Your task to perform on an android device: Turn on the flashlight Image 0: 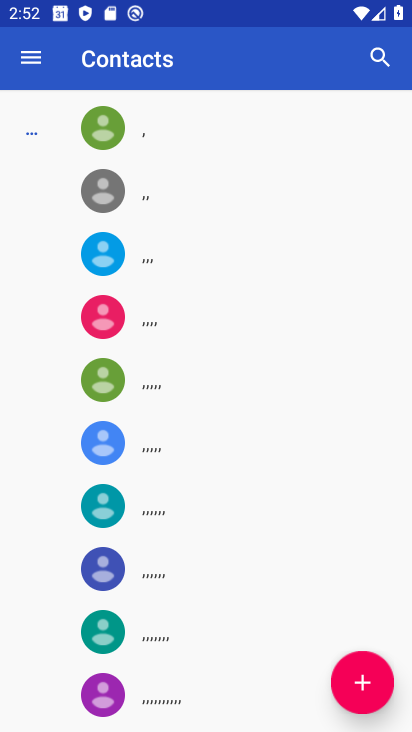
Step 0: press home button
Your task to perform on an android device: Turn on the flashlight Image 1: 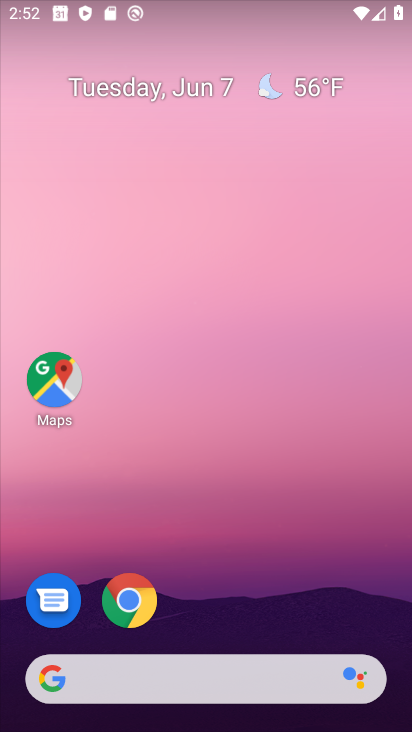
Step 1: drag from (386, 689) to (351, 114)
Your task to perform on an android device: Turn on the flashlight Image 2: 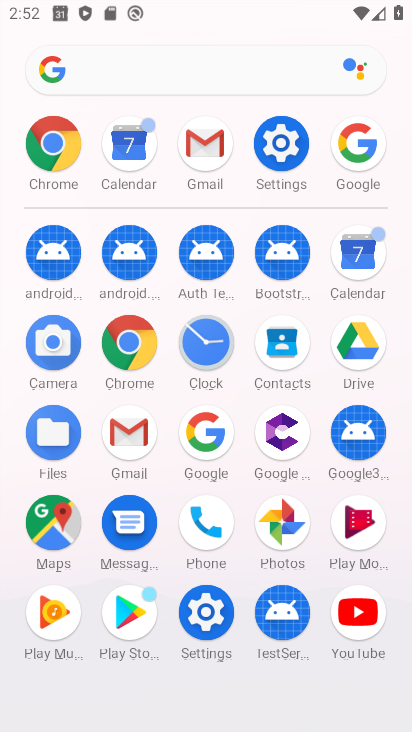
Step 2: click (285, 142)
Your task to perform on an android device: Turn on the flashlight Image 3: 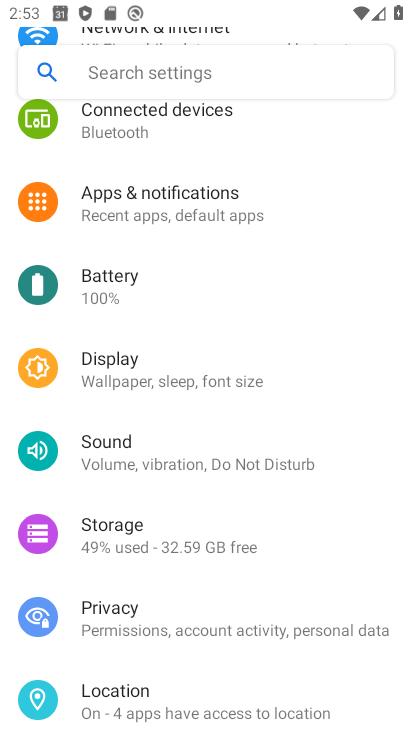
Step 3: click (94, 361)
Your task to perform on an android device: Turn on the flashlight Image 4: 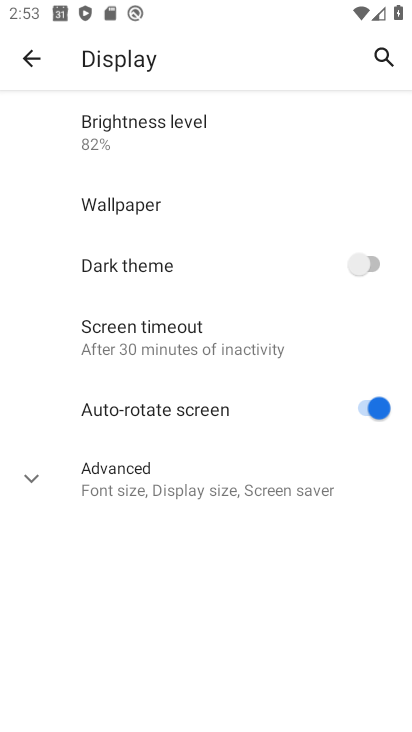
Step 4: task complete